Your task to perform on an android device: Go to wifi settings Image 0: 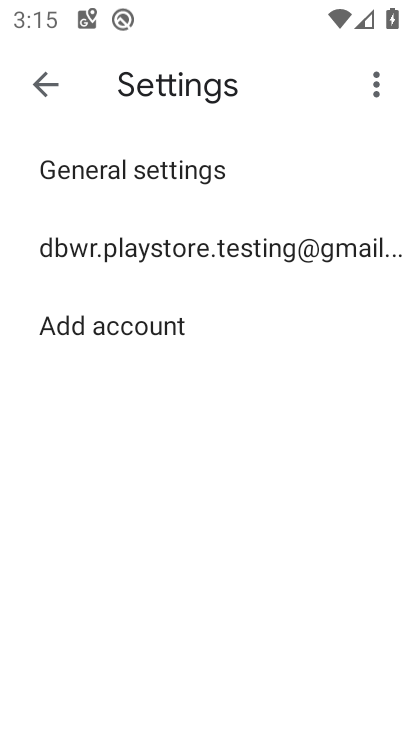
Step 0: press home button
Your task to perform on an android device: Go to wifi settings Image 1: 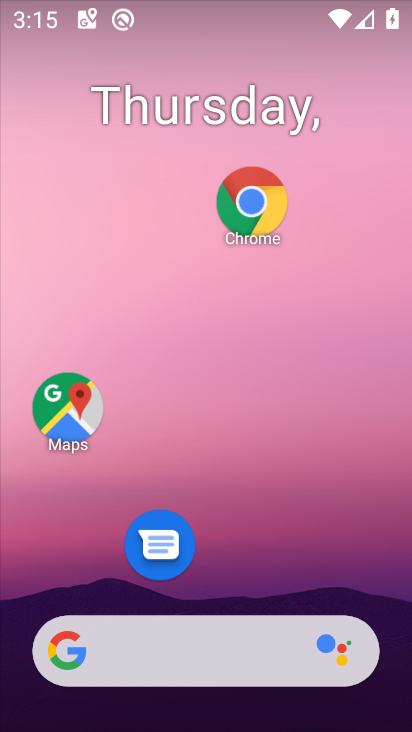
Step 1: drag from (162, 523) to (162, 338)
Your task to perform on an android device: Go to wifi settings Image 2: 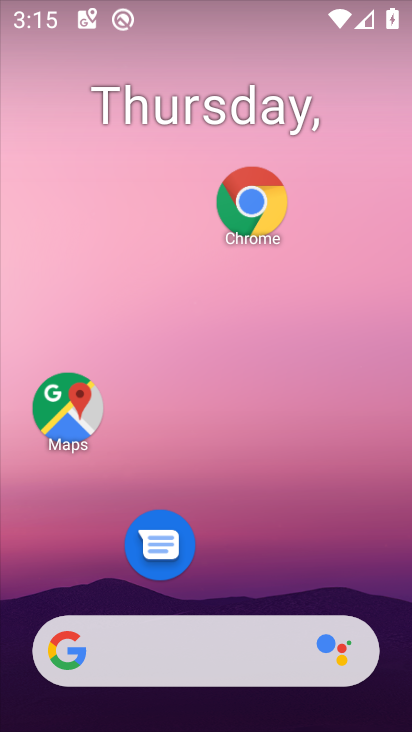
Step 2: click (187, 283)
Your task to perform on an android device: Go to wifi settings Image 3: 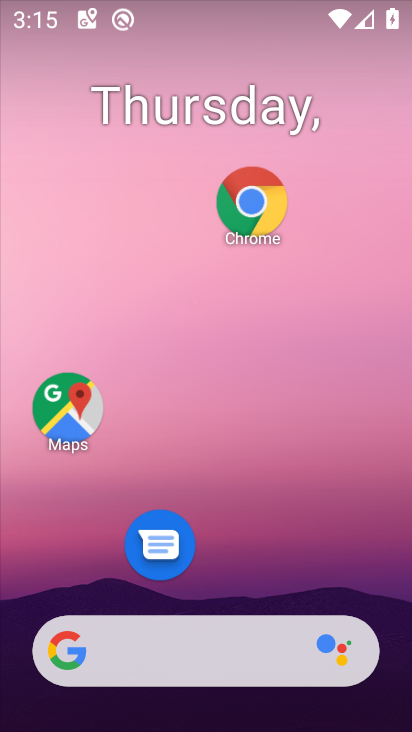
Step 3: drag from (231, 559) to (229, 304)
Your task to perform on an android device: Go to wifi settings Image 4: 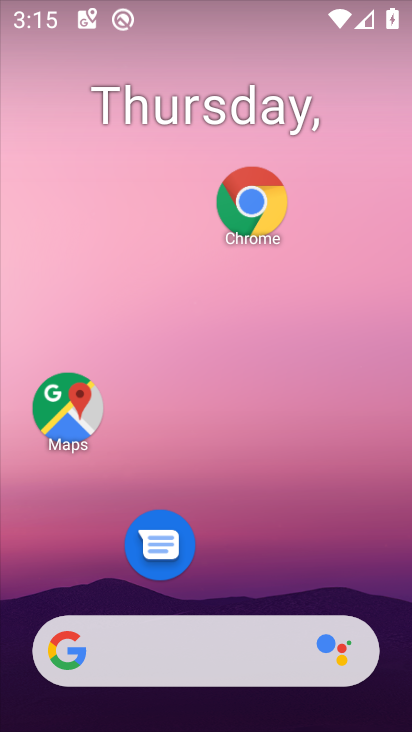
Step 4: drag from (142, 536) to (142, 315)
Your task to perform on an android device: Go to wifi settings Image 5: 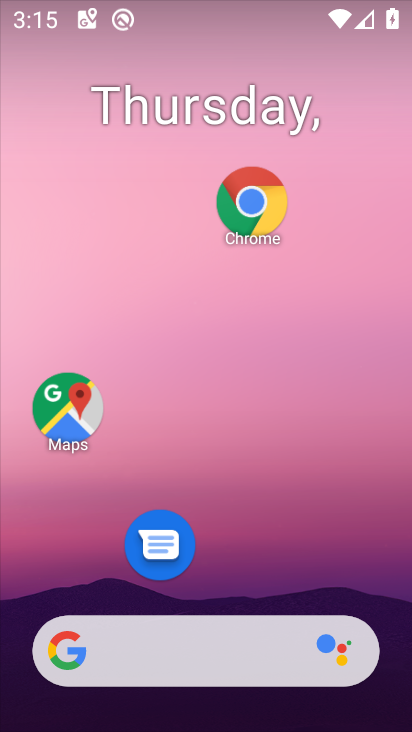
Step 5: drag from (216, 625) to (217, 298)
Your task to perform on an android device: Go to wifi settings Image 6: 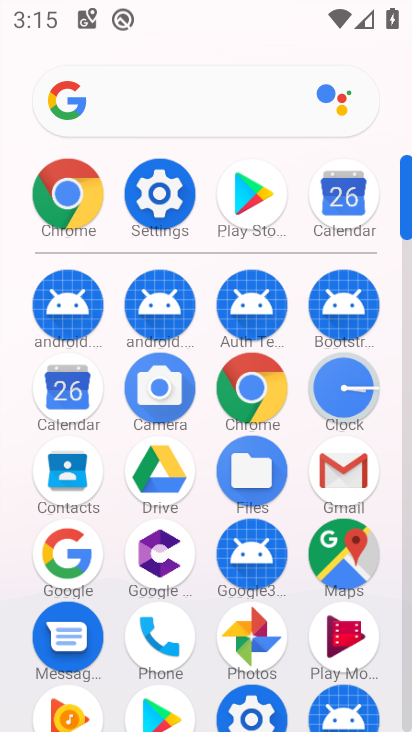
Step 6: click (142, 213)
Your task to perform on an android device: Go to wifi settings Image 7: 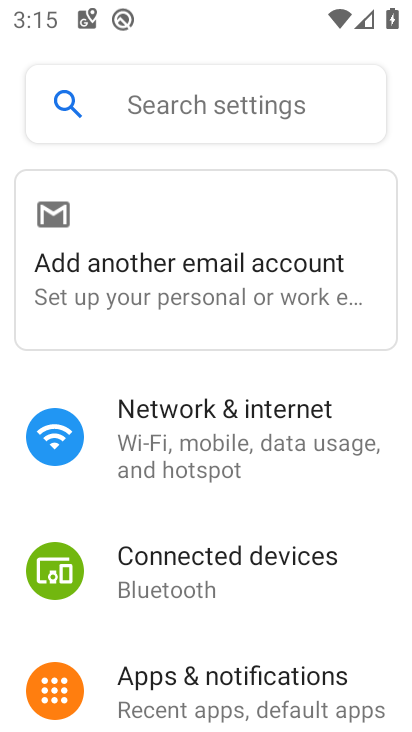
Step 7: click (192, 447)
Your task to perform on an android device: Go to wifi settings Image 8: 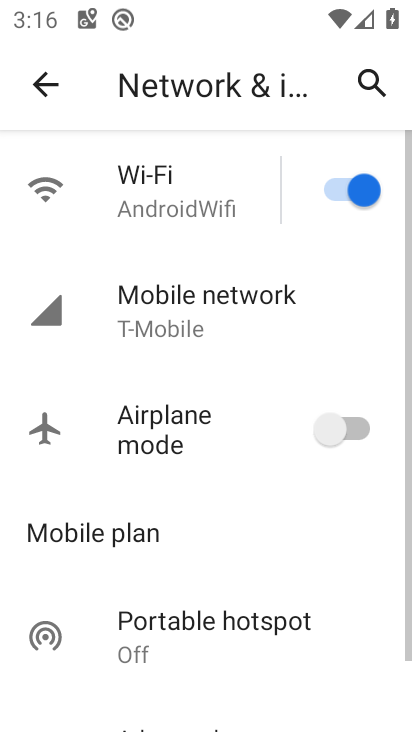
Step 8: click (136, 195)
Your task to perform on an android device: Go to wifi settings Image 9: 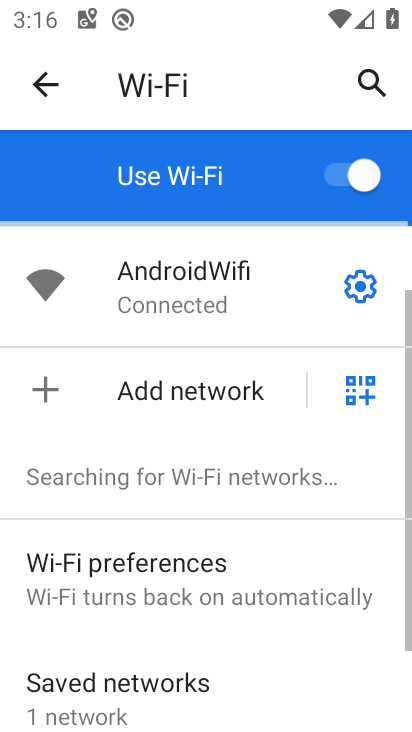
Step 9: click (366, 289)
Your task to perform on an android device: Go to wifi settings Image 10: 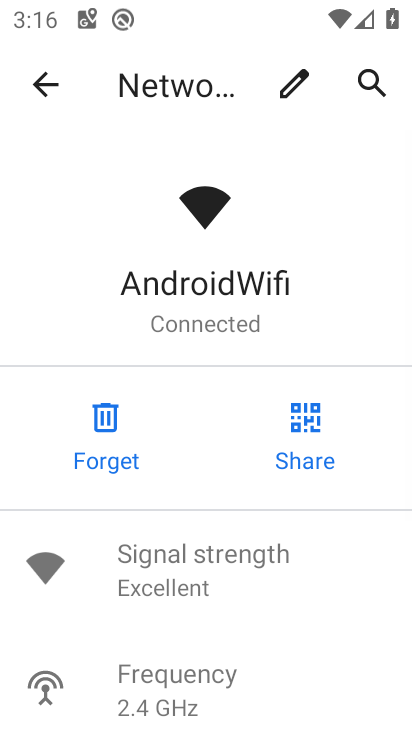
Step 10: drag from (186, 683) to (192, 330)
Your task to perform on an android device: Go to wifi settings Image 11: 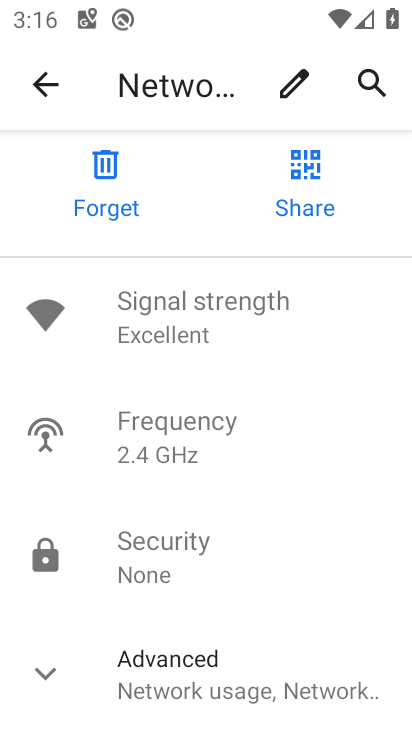
Step 11: click (70, 673)
Your task to perform on an android device: Go to wifi settings Image 12: 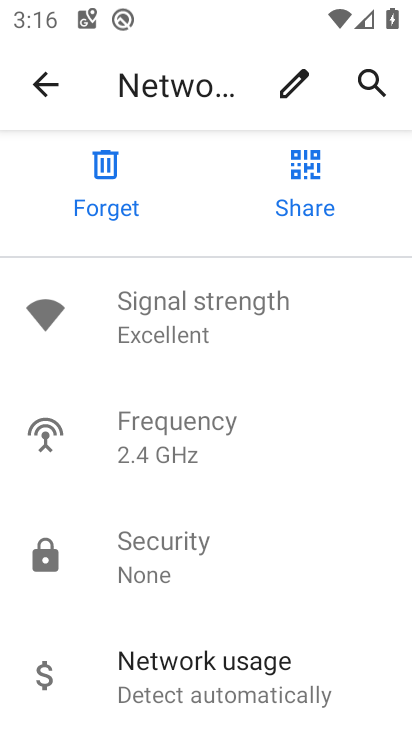
Step 12: task complete